Your task to perform on an android device: Search for seafood restaurants on Google Maps Image 0: 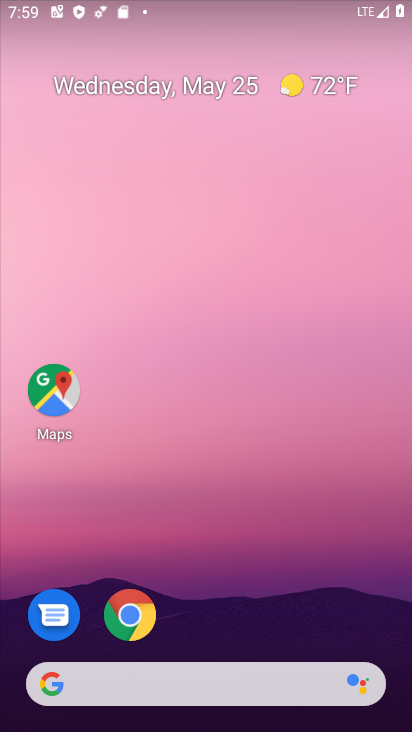
Step 0: click (53, 385)
Your task to perform on an android device: Search for seafood restaurants on Google Maps Image 1: 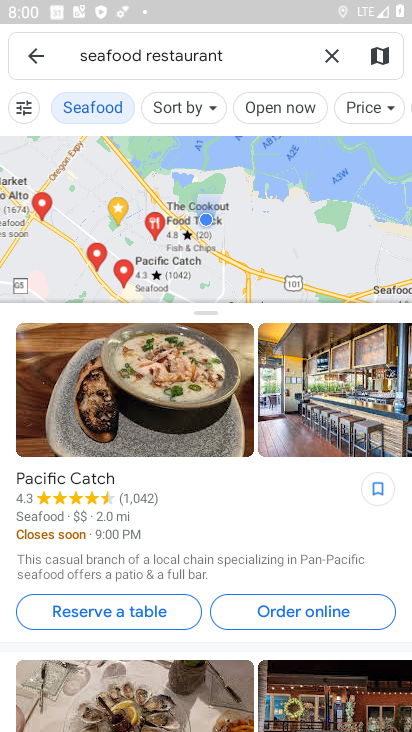
Step 1: task complete